Your task to perform on an android device: What's the weather going to be tomorrow? Image 0: 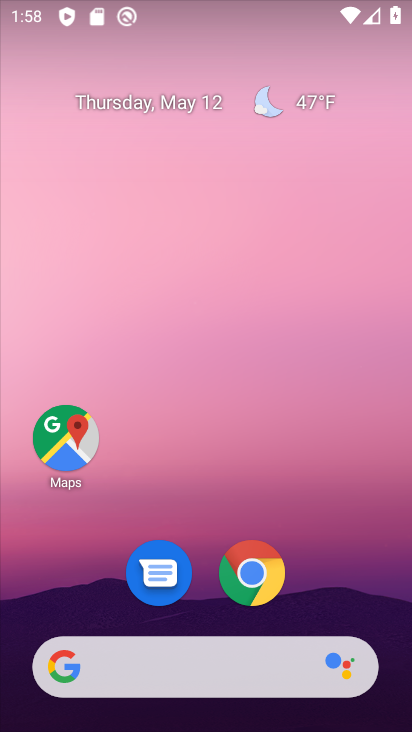
Step 0: click (194, 677)
Your task to perform on an android device: What's the weather going to be tomorrow? Image 1: 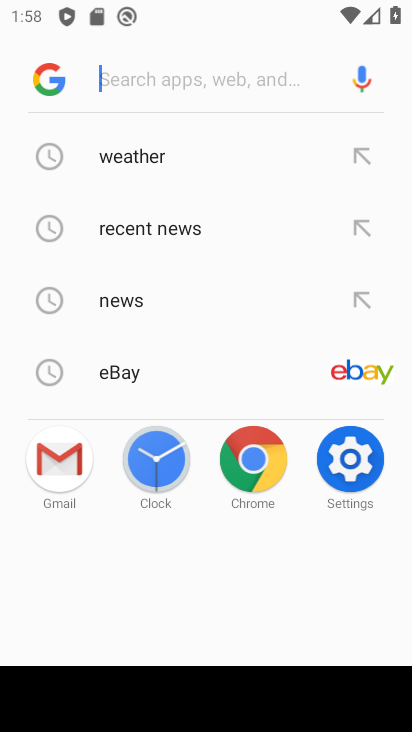
Step 1: click (183, 160)
Your task to perform on an android device: What's the weather going to be tomorrow? Image 2: 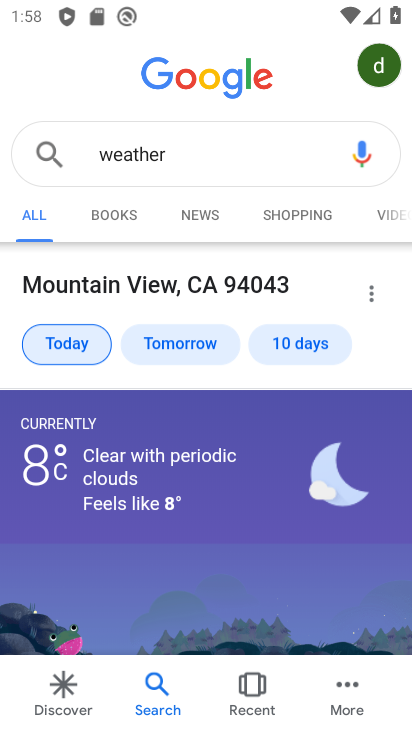
Step 2: click (184, 341)
Your task to perform on an android device: What's the weather going to be tomorrow? Image 3: 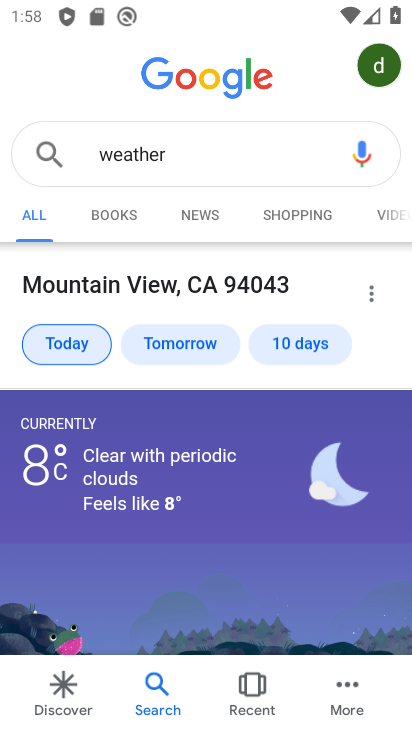
Step 3: click (184, 341)
Your task to perform on an android device: What's the weather going to be tomorrow? Image 4: 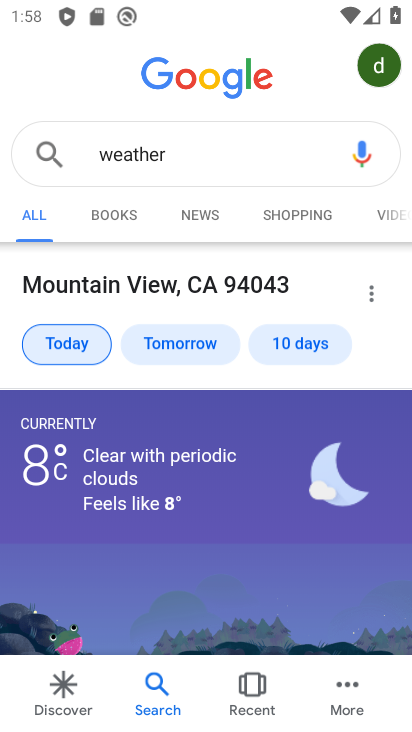
Step 4: click (184, 341)
Your task to perform on an android device: What's the weather going to be tomorrow? Image 5: 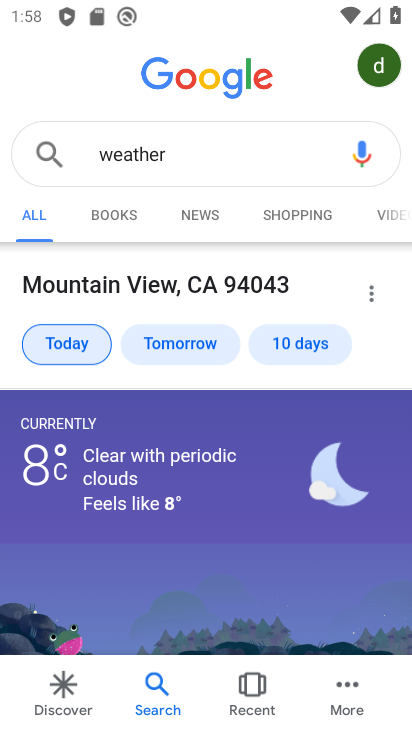
Step 5: click (184, 341)
Your task to perform on an android device: What's the weather going to be tomorrow? Image 6: 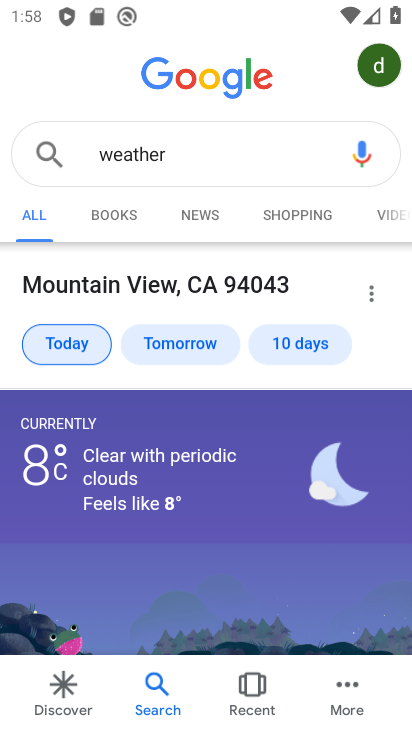
Step 6: click (184, 341)
Your task to perform on an android device: What's the weather going to be tomorrow? Image 7: 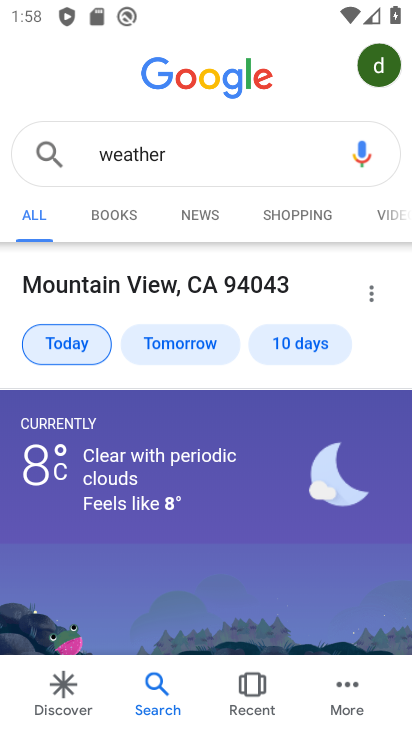
Step 7: click (185, 341)
Your task to perform on an android device: What's the weather going to be tomorrow? Image 8: 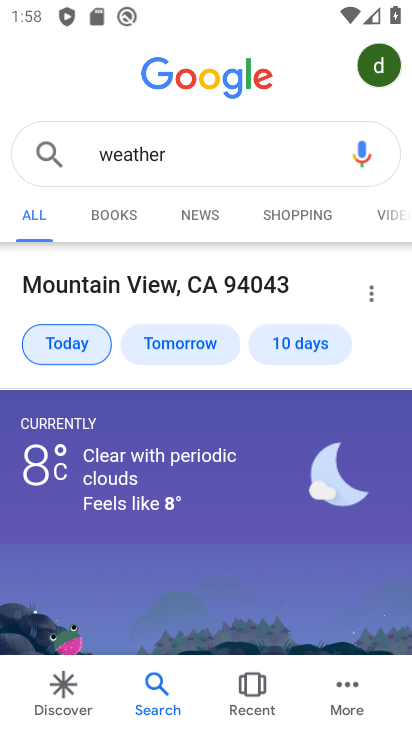
Step 8: click (185, 341)
Your task to perform on an android device: What's the weather going to be tomorrow? Image 9: 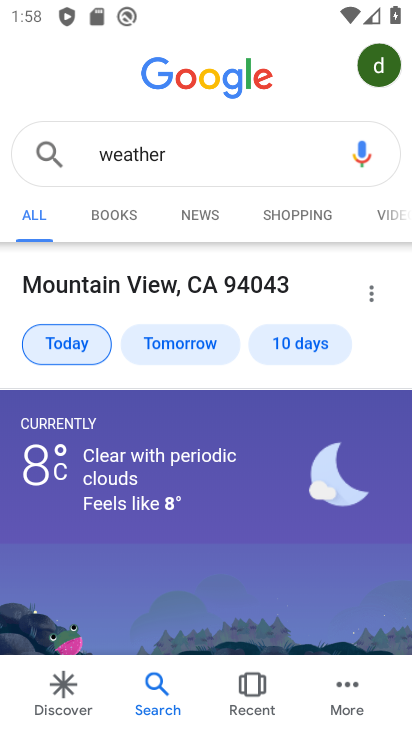
Step 9: click (185, 341)
Your task to perform on an android device: What's the weather going to be tomorrow? Image 10: 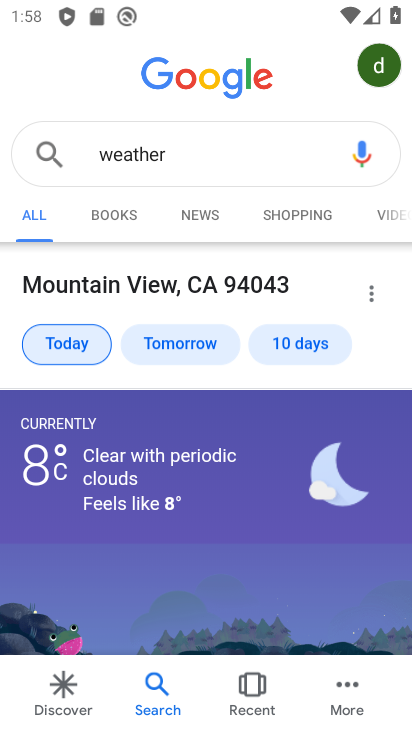
Step 10: click (185, 341)
Your task to perform on an android device: What's the weather going to be tomorrow? Image 11: 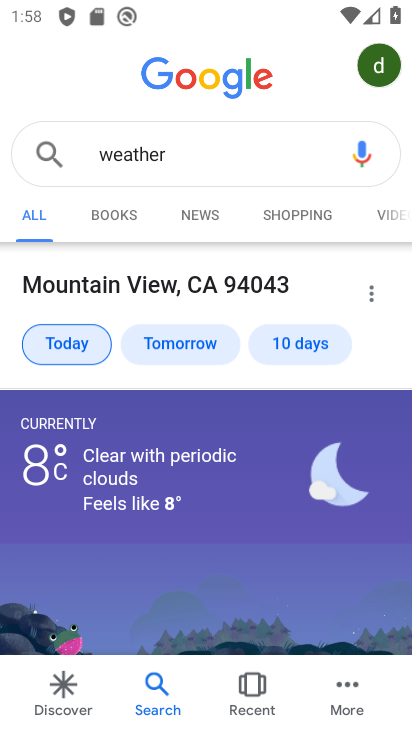
Step 11: click (185, 341)
Your task to perform on an android device: What's the weather going to be tomorrow? Image 12: 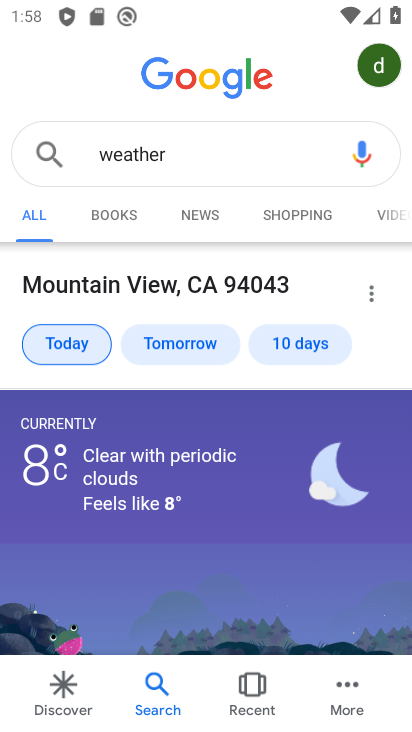
Step 12: click (185, 341)
Your task to perform on an android device: What's the weather going to be tomorrow? Image 13: 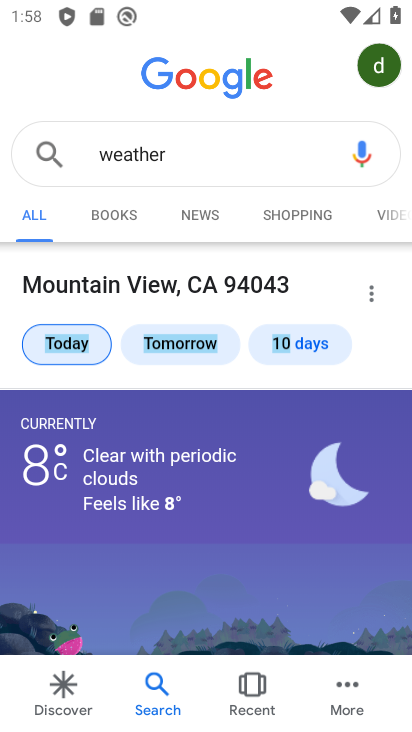
Step 13: click (185, 341)
Your task to perform on an android device: What's the weather going to be tomorrow? Image 14: 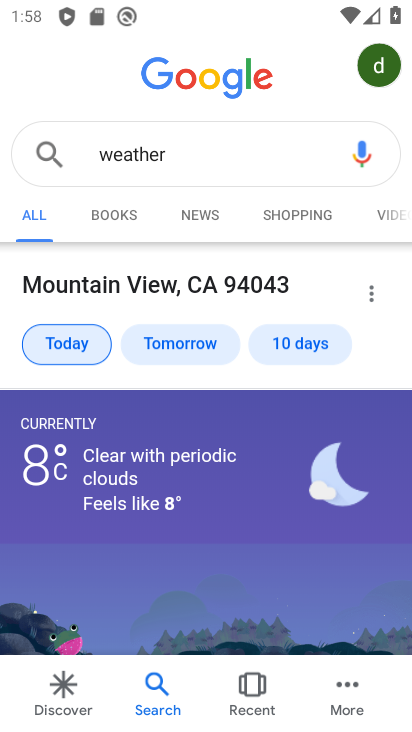
Step 14: click (185, 341)
Your task to perform on an android device: What's the weather going to be tomorrow? Image 15: 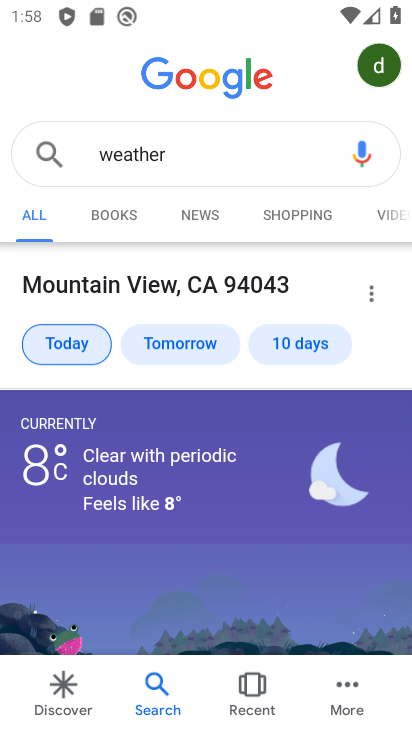
Step 15: click (220, 337)
Your task to perform on an android device: What's the weather going to be tomorrow? Image 16: 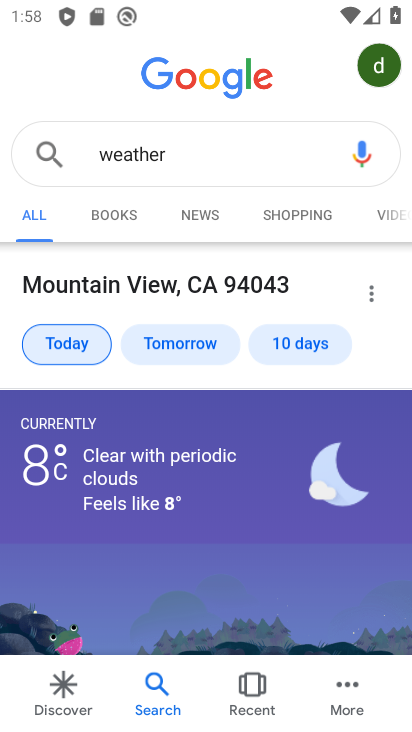
Step 16: press home button
Your task to perform on an android device: What's the weather going to be tomorrow? Image 17: 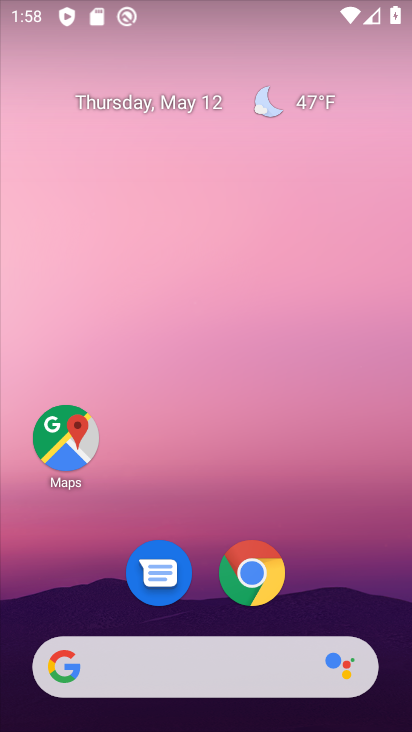
Step 17: click (322, 102)
Your task to perform on an android device: What's the weather going to be tomorrow? Image 18: 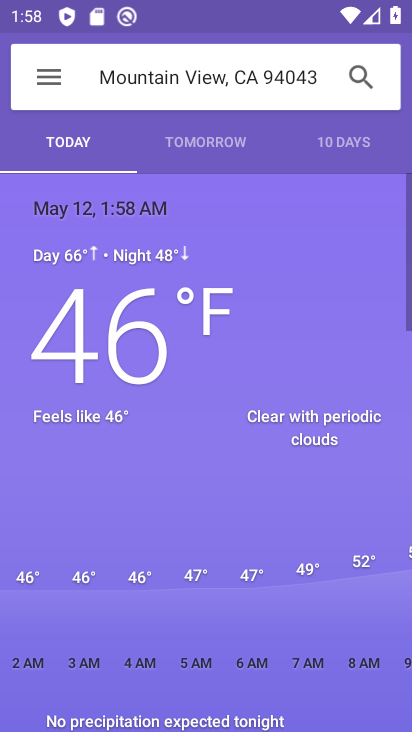
Step 18: click (231, 139)
Your task to perform on an android device: What's the weather going to be tomorrow? Image 19: 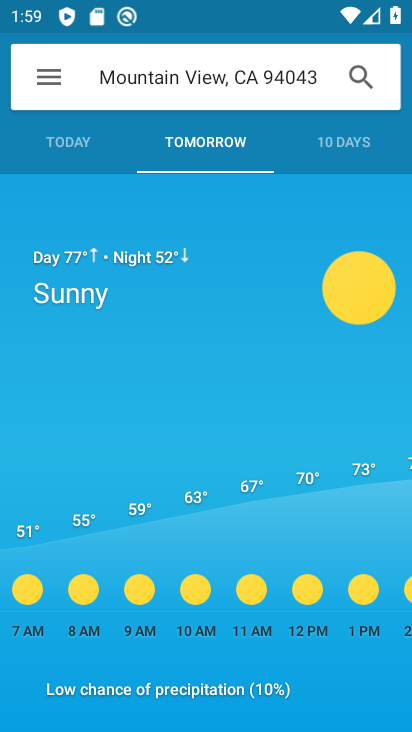
Step 19: task complete